Your task to perform on an android device: Is it going to rain tomorrow? Image 0: 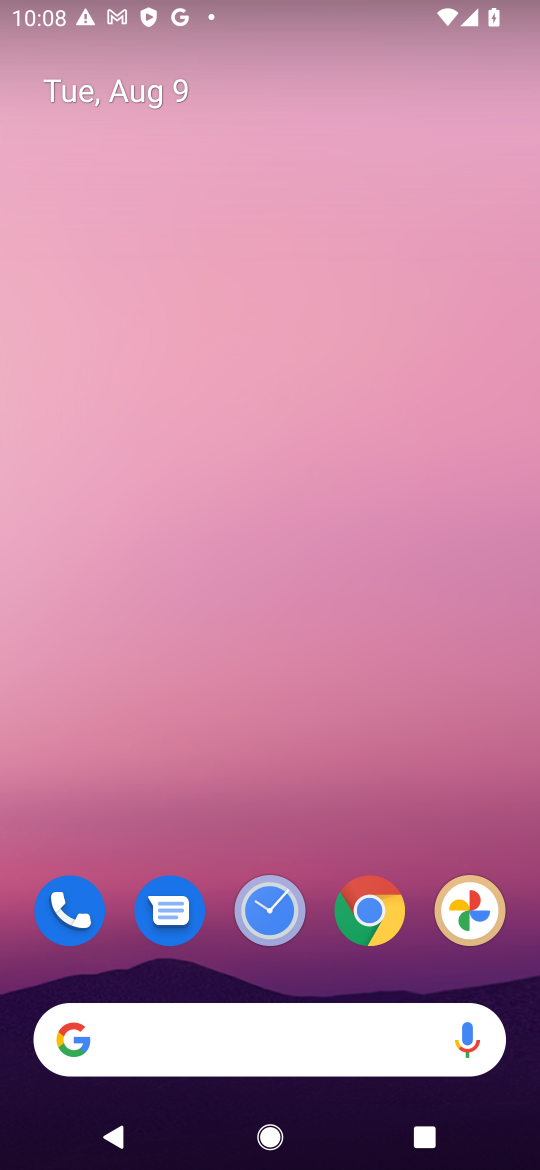
Step 0: click (147, 1054)
Your task to perform on an android device: Is it going to rain tomorrow? Image 1: 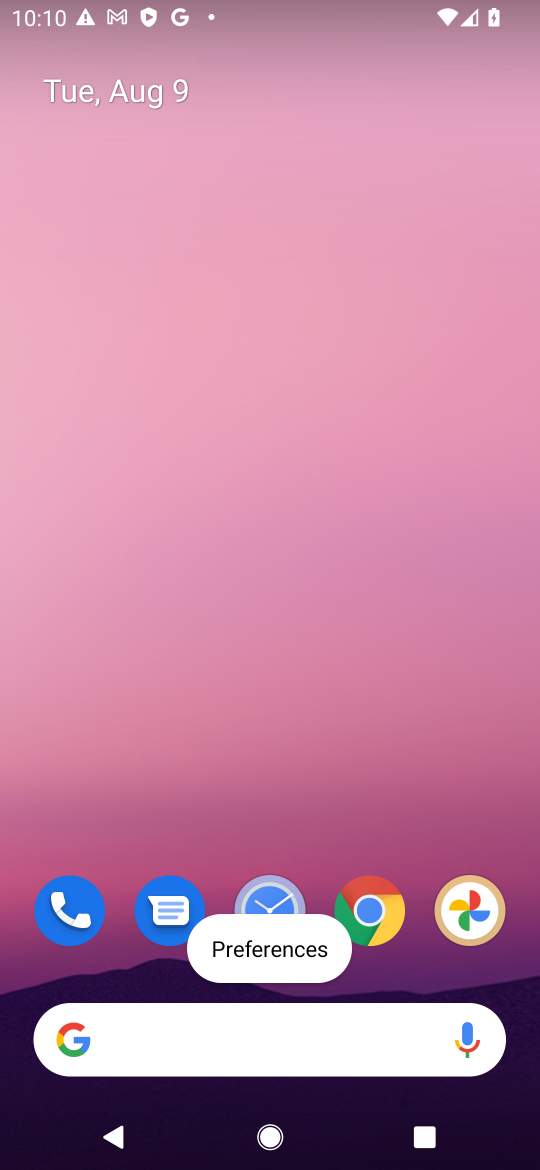
Step 1: click (278, 1054)
Your task to perform on an android device: Is it going to rain tomorrow? Image 2: 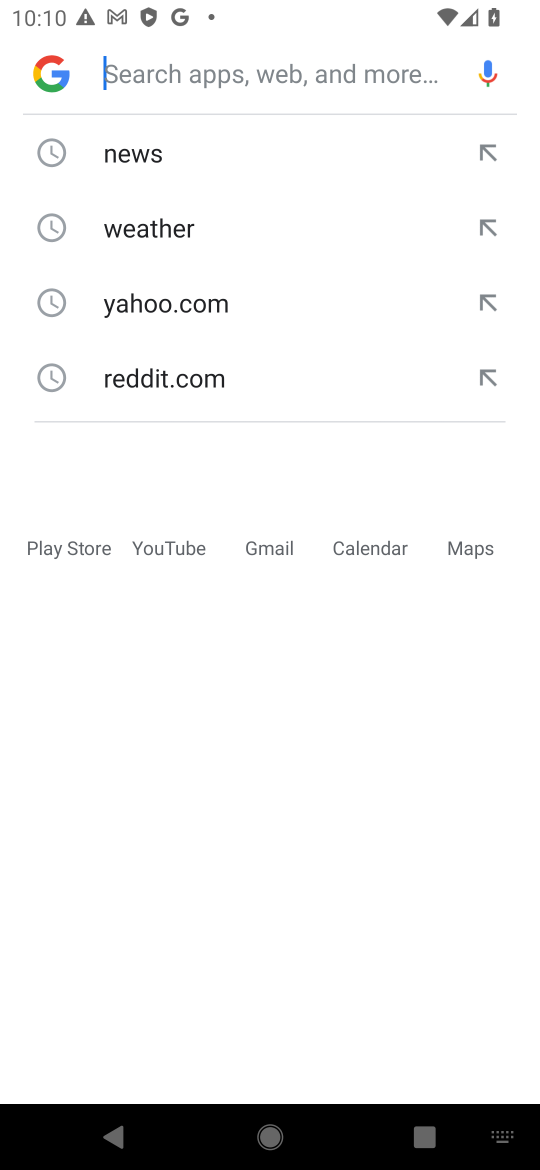
Step 2: click (142, 218)
Your task to perform on an android device: Is it going to rain tomorrow? Image 3: 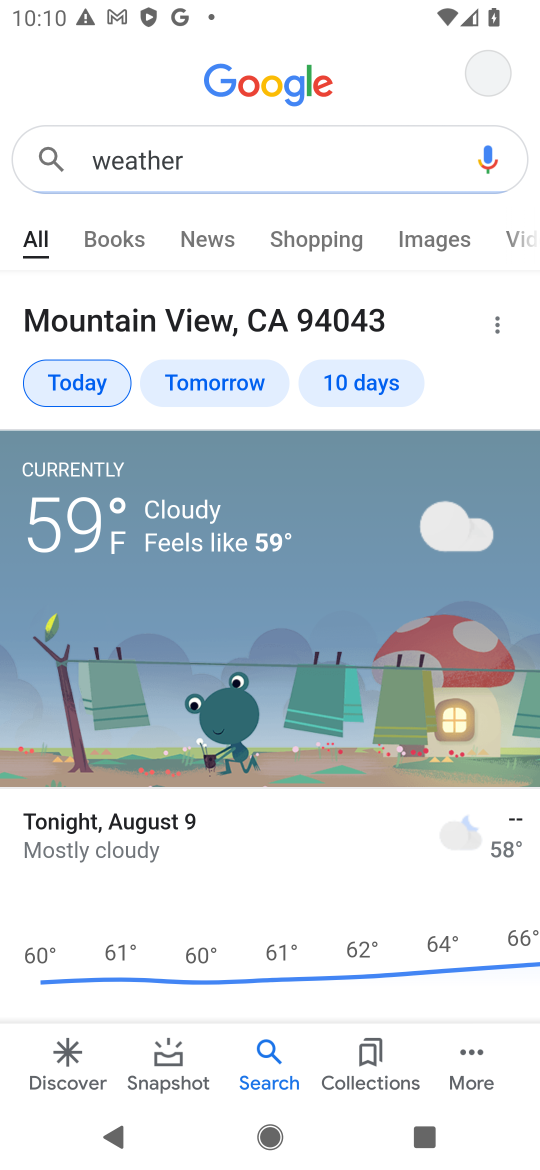
Step 3: click (211, 370)
Your task to perform on an android device: Is it going to rain tomorrow? Image 4: 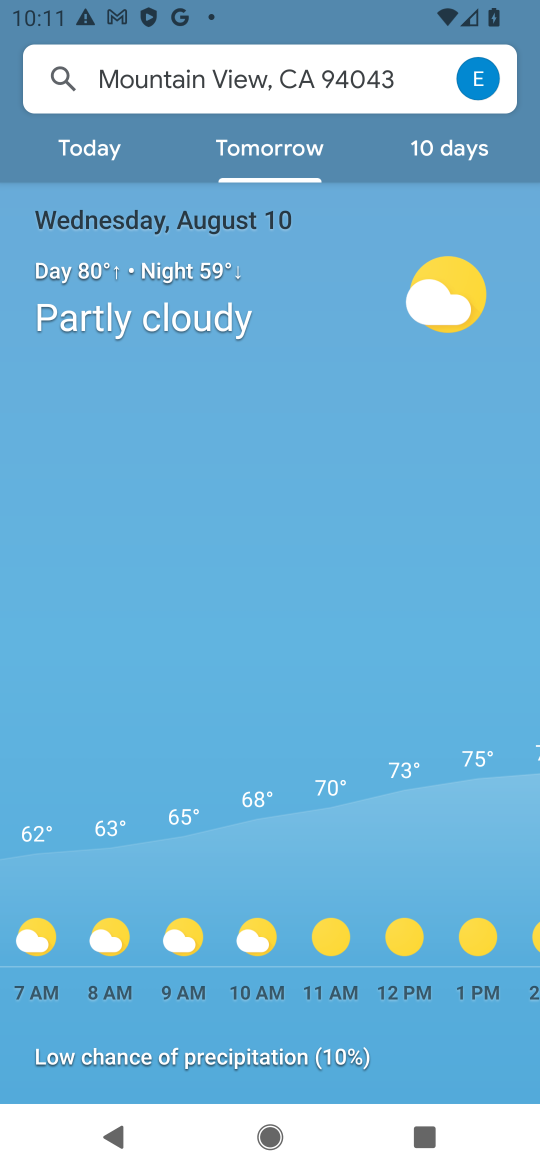
Step 4: task complete